Your task to perform on an android device: turn notification dots on Image 0: 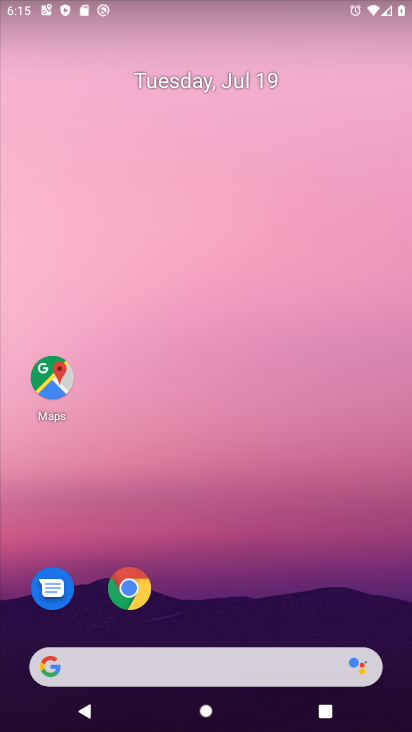
Step 0: drag from (248, 74) to (117, 39)
Your task to perform on an android device: turn notification dots on Image 1: 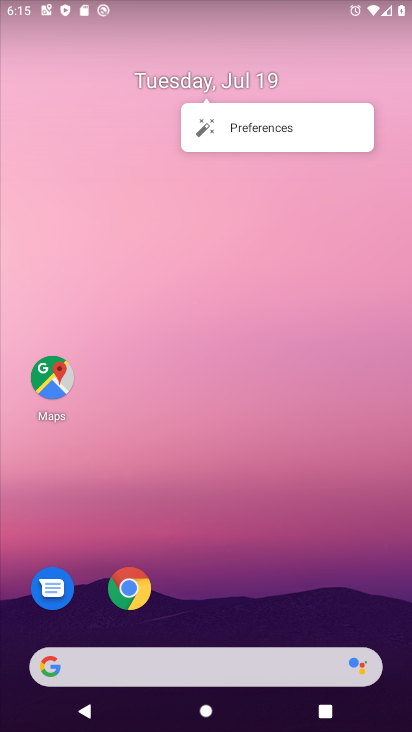
Step 1: drag from (170, 623) to (169, 31)
Your task to perform on an android device: turn notification dots on Image 2: 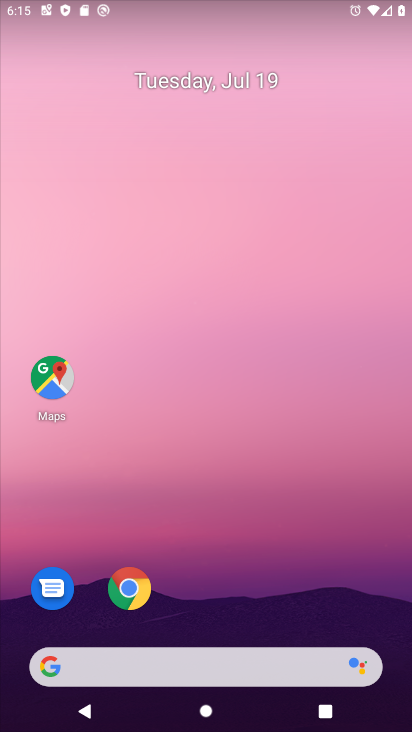
Step 2: drag from (190, 635) to (183, 84)
Your task to perform on an android device: turn notification dots on Image 3: 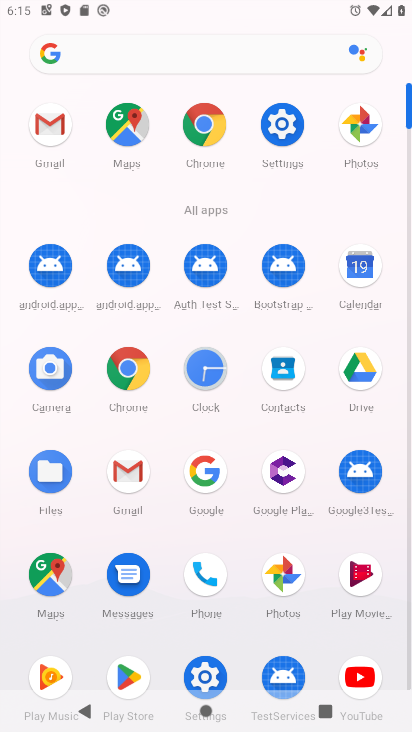
Step 3: click (277, 122)
Your task to perform on an android device: turn notification dots on Image 4: 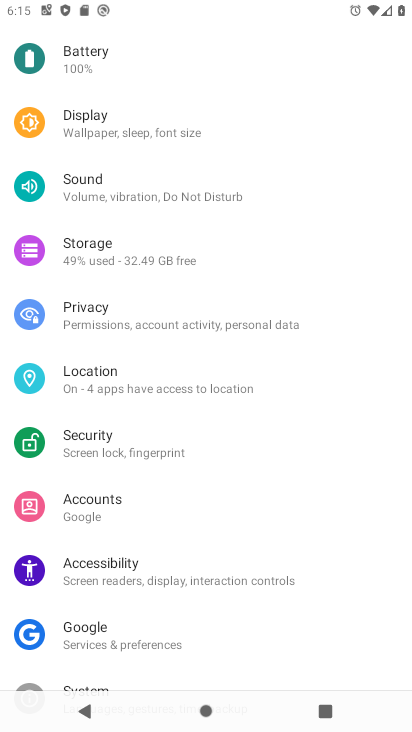
Step 4: drag from (172, 365) to (148, 626)
Your task to perform on an android device: turn notification dots on Image 5: 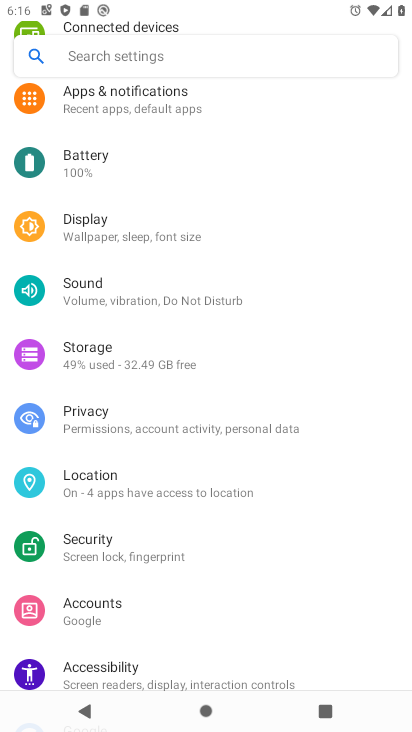
Step 5: click (113, 110)
Your task to perform on an android device: turn notification dots on Image 6: 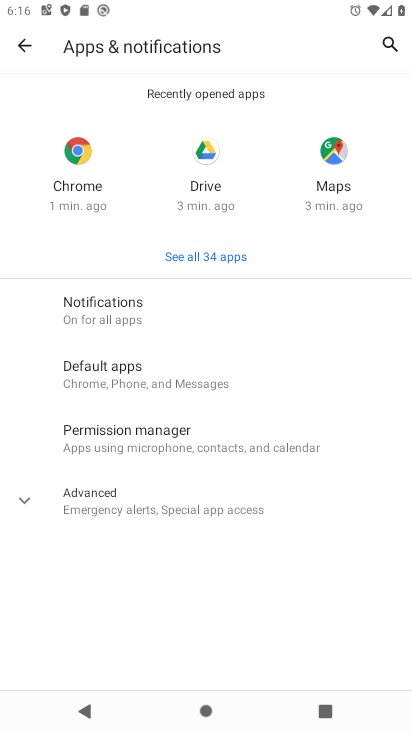
Step 6: click (104, 497)
Your task to perform on an android device: turn notification dots on Image 7: 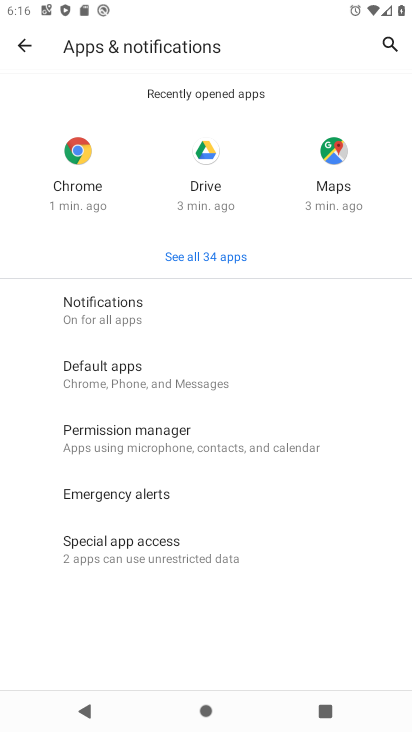
Step 7: click (184, 320)
Your task to perform on an android device: turn notification dots on Image 8: 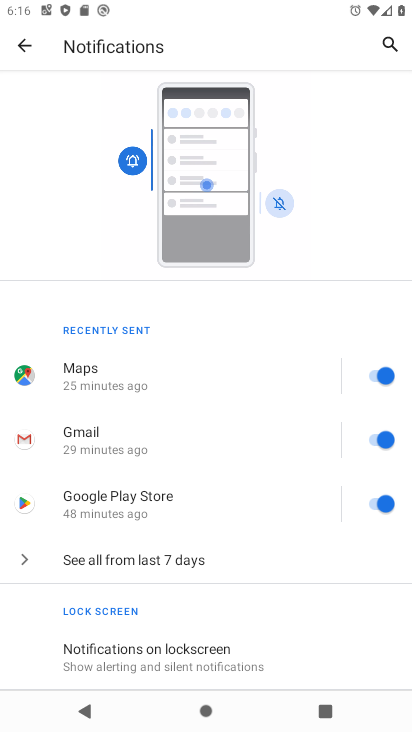
Step 8: drag from (138, 635) to (199, 172)
Your task to perform on an android device: turn notification dots on Image 9: 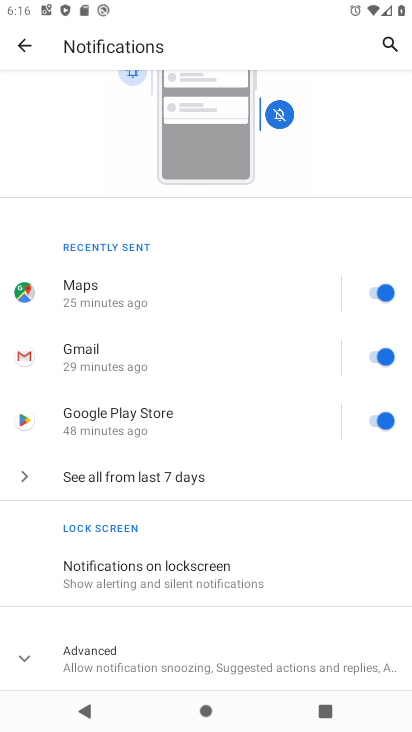
Step 9: drag from (228, 624) to (267, 248)
Your task to perform on an android device: turn notification dots on Image 10: 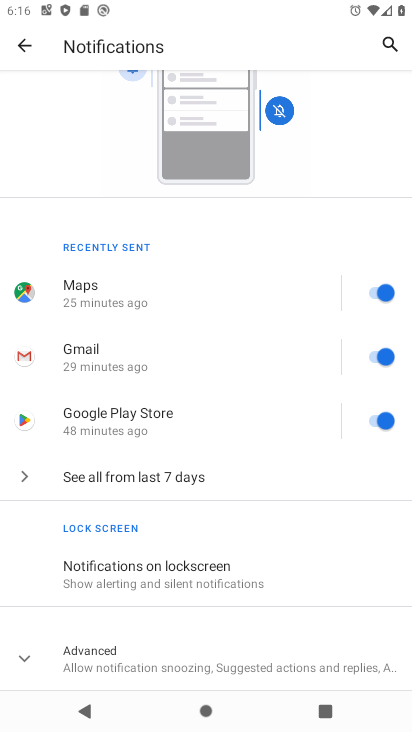
Step 10: click (195, 638)
Your task to perform on an android device: turn notification dots on Image 11: 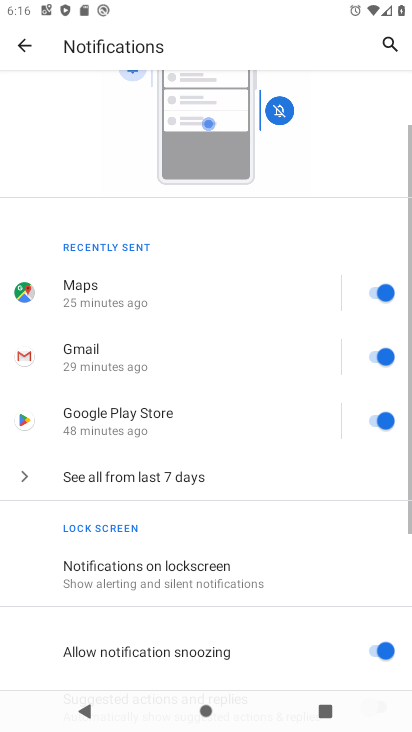
Step 11: drag from (186, 639) to (228, 5)
Your task to perform on an android device: turn notification dots on Image 12: 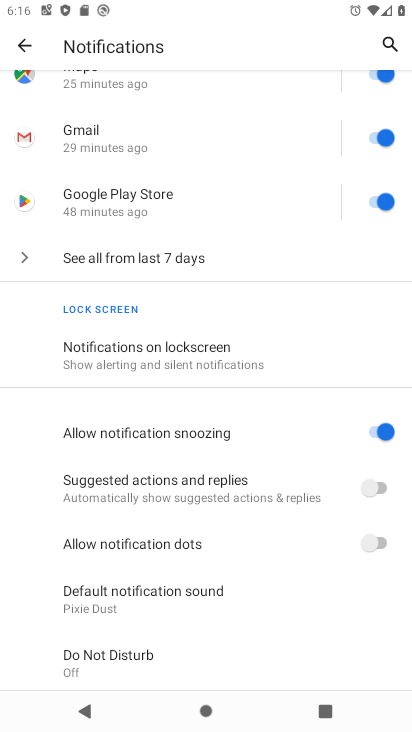
Step 12: click (376, 538)
Your task to perform on an android device: turn notification dots on Image 13: 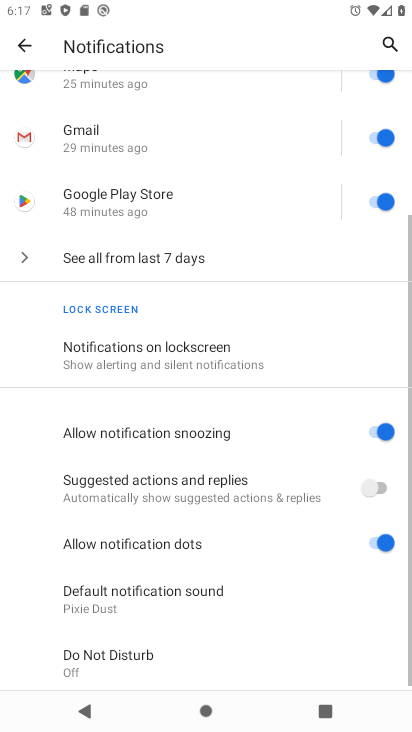
Step 13: task complete